Your task to perform on an android device: Open the calendar app, open the side menu, and click the "Day" option Image 0: 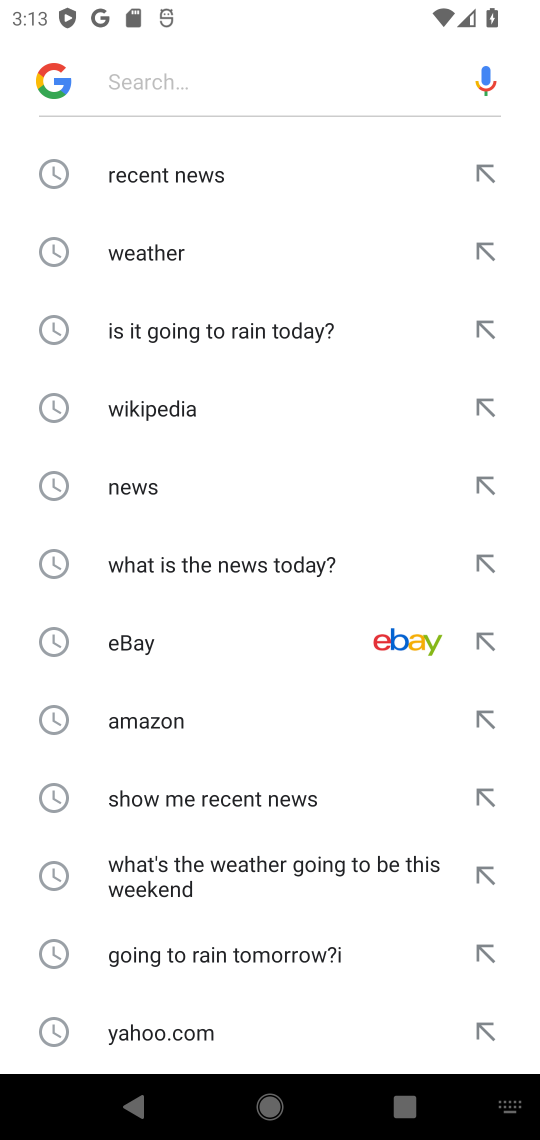
Step 0: press home button
Your task to perform on an android device: Open the calendar app, open the side menu, and click the "Day" option Image 1: 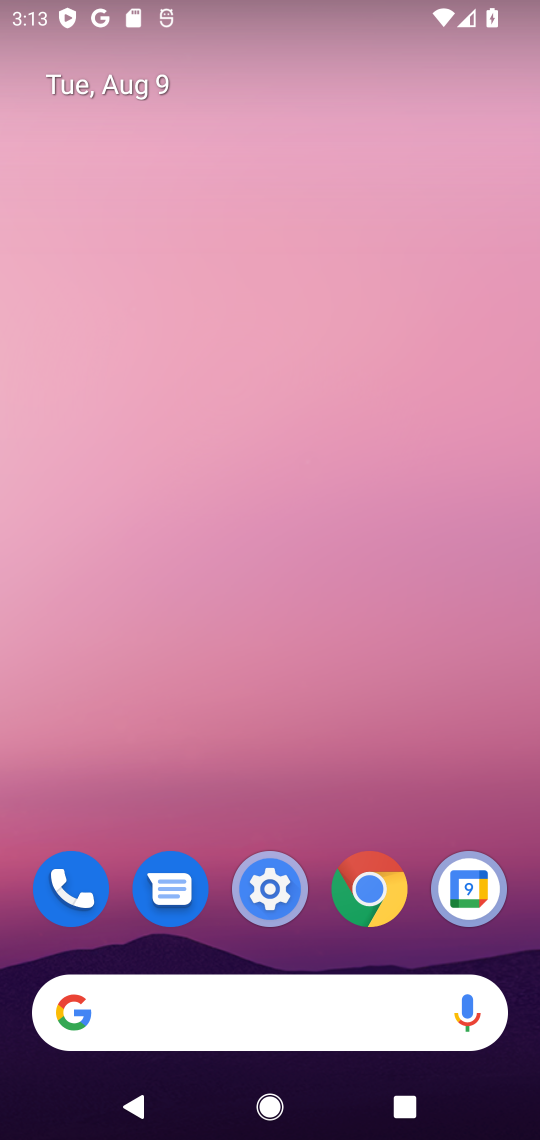
Step 1: click (482, 882)
Your task to perform on an android device: Open the calendar app, open the side menu, and click the "Day" option Image 2: 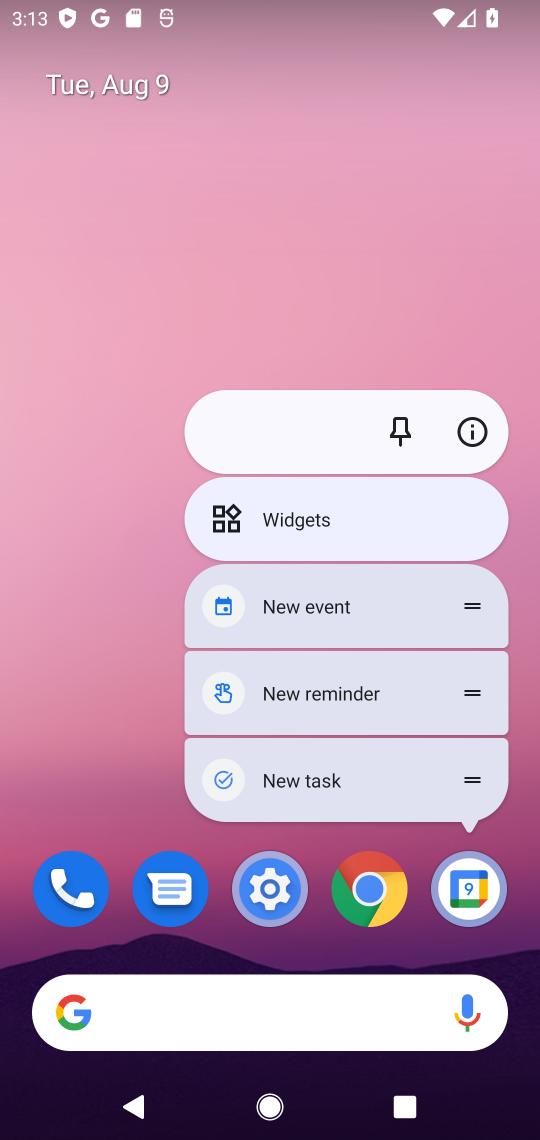
Step 2: click (482, 880)
Your task to perform on an android device: Open the calendar app, open the side menu, and click the "Day" option Image 3: 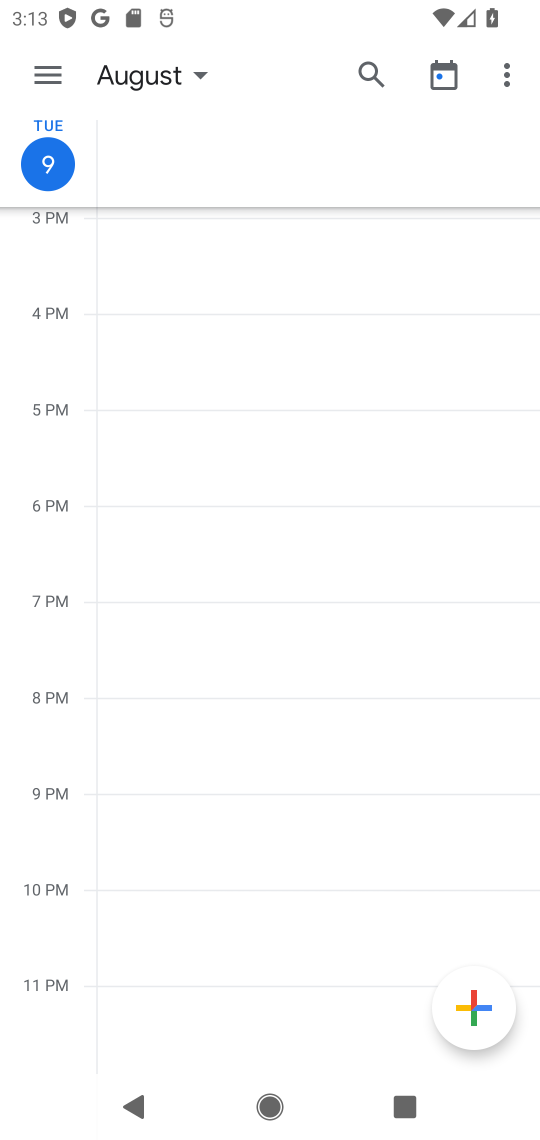
Step 3: task complete